Your task to perform on an android device: Go to eBay Image 0: 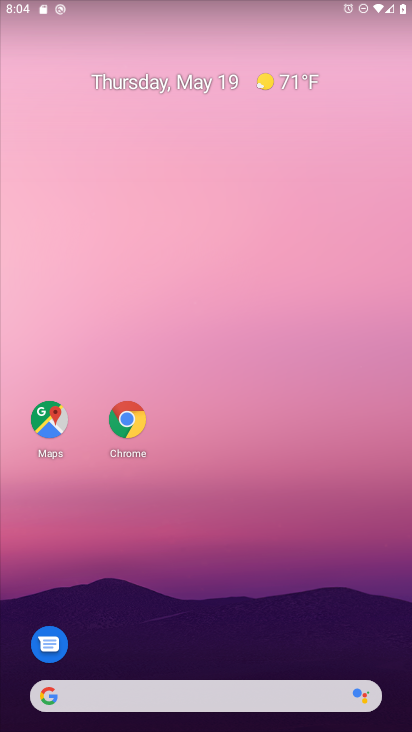
Step 0: drag from (204, 682) to (236, 330)
Your task to perform on an android device: Go to eBay Image 1: 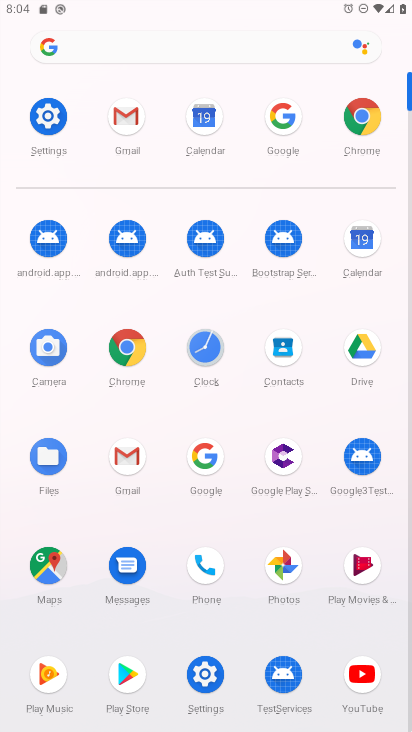
Step 1: click (126, 341)
Your task to perform on an android device: Go to eBay Image 2: 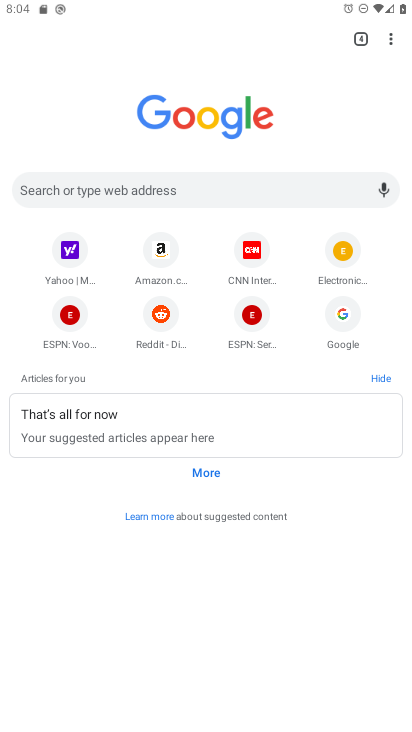
Step 2: click (48, 184)
Your task to perform on an android device: Go to eBay Image 3: 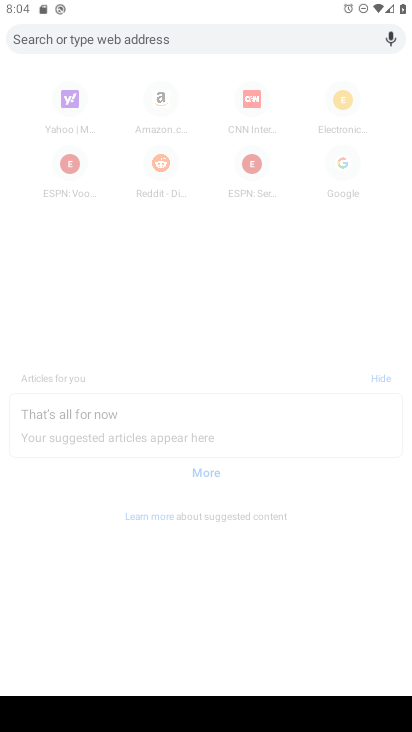
Step 3: type "ebay "
Your task to perform on an android device: Go to eBay Image 4: 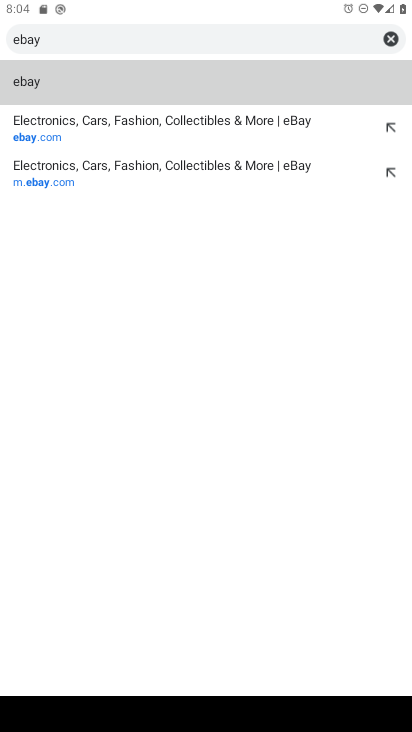
Step 4: click (142, 121)
Your task to perform on an android device: Go to eBay Image 5: 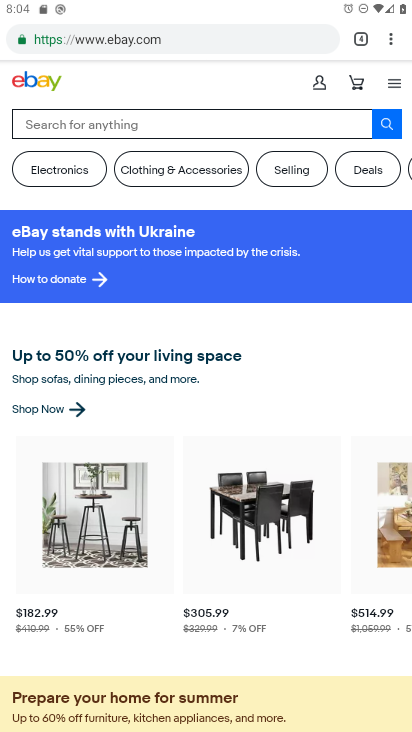
Step 5: click (343, 178)
Your task to perform on an android device: Go to eBay Image 6: 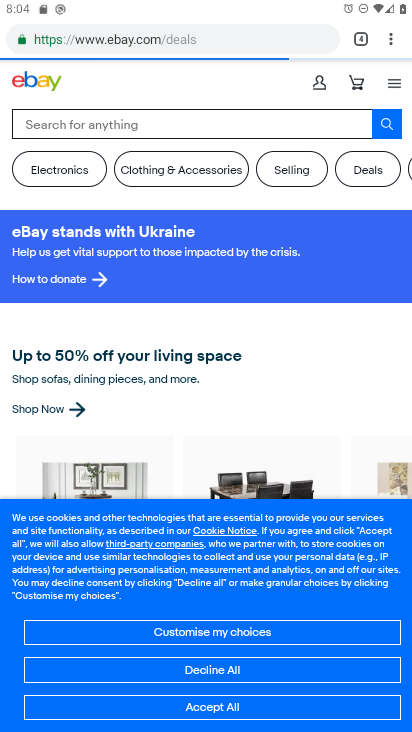
Step 6: task complete